Your task to perform on an android device: Open Google Maps Image 0: 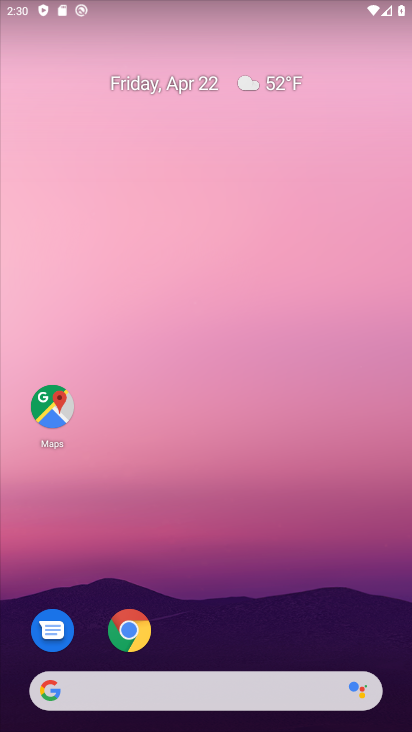
Step 0: click (266, 110)
Your task to perform on an android device: Open Google Maps Image 1: 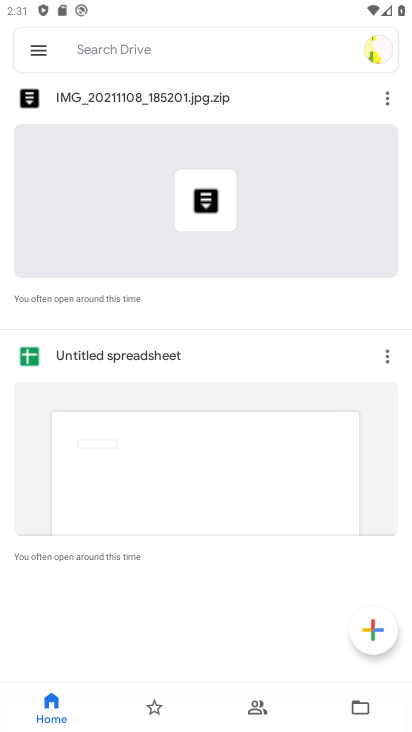
Step 1: press home button
Your task to perform on an android device: Open Google Maps Image 2: 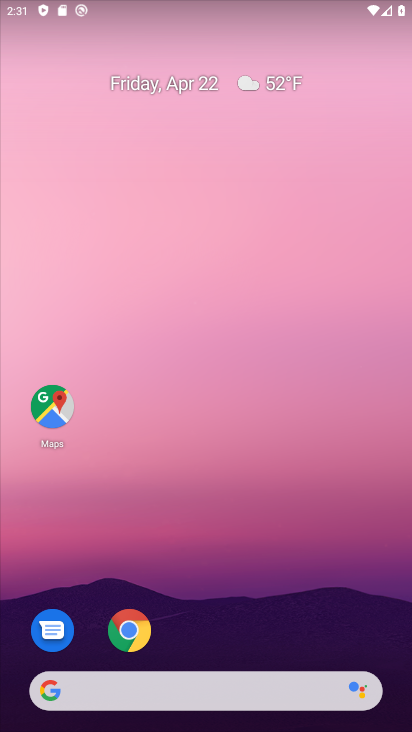
Step 2: click (52, 401)
Your task to perform on an android device: Open Google Maps Image 3: 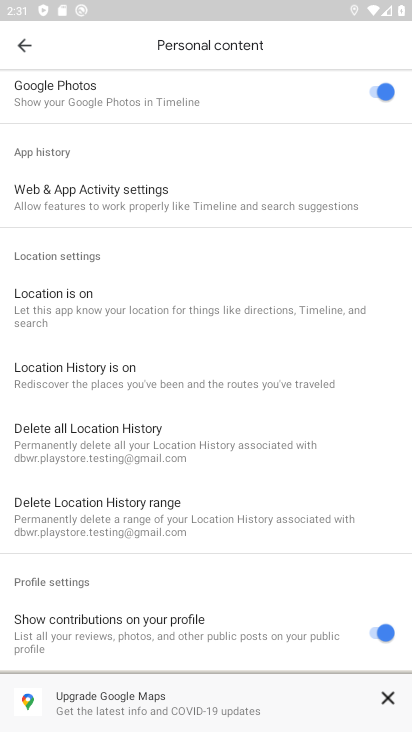
Step 3: task complete